Your task to perform on an android device: Open wifi settings Image 0: 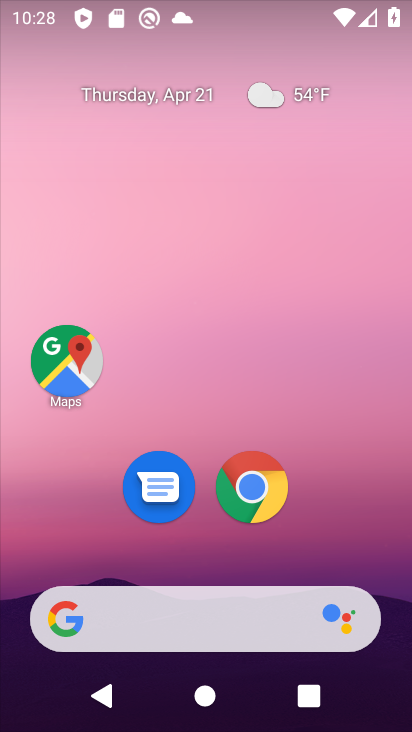
Step 0: drag from (380, 531) to (368, 142)
Your task to perform on an android device: Open wifi settings Image 1: 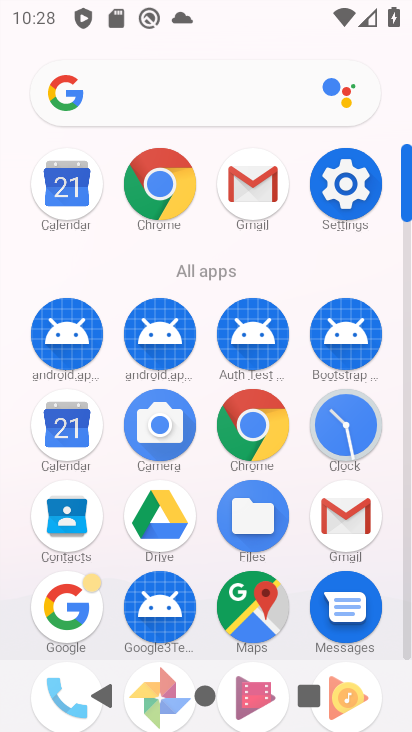
Step 1: click (350, 213)
Your task to perform on an android device: Open wifi settings Image 2: 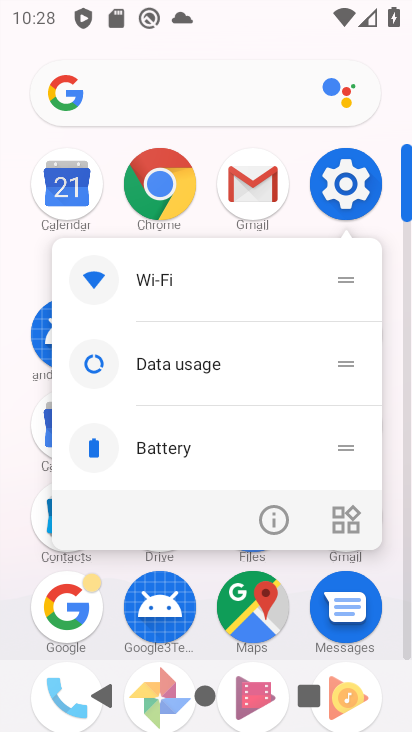
Step 2: click (350, 213)
Your task to perform on an android device: Open wifi settings Image 3: 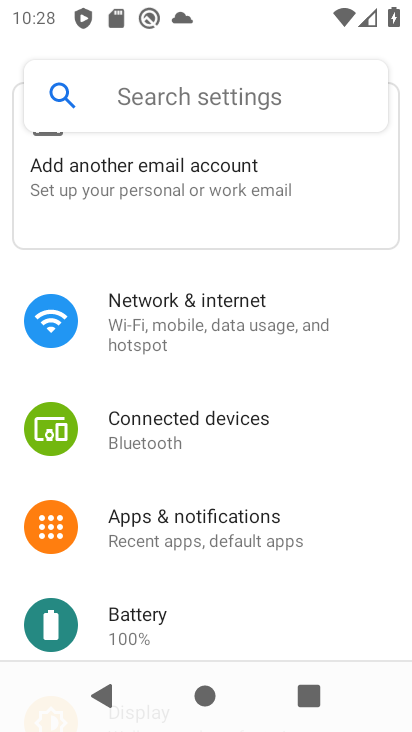
Step 3: drag from (329, 595) to (316, 325)
Your task to perform on an android device: Open wifi settings Image 4: 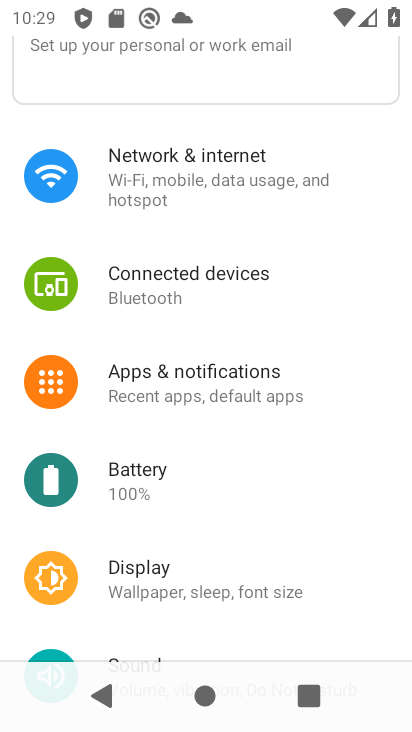
Step 4: click (222, 172)
Your task to perform on an android device: Open wifi settings Image 5: 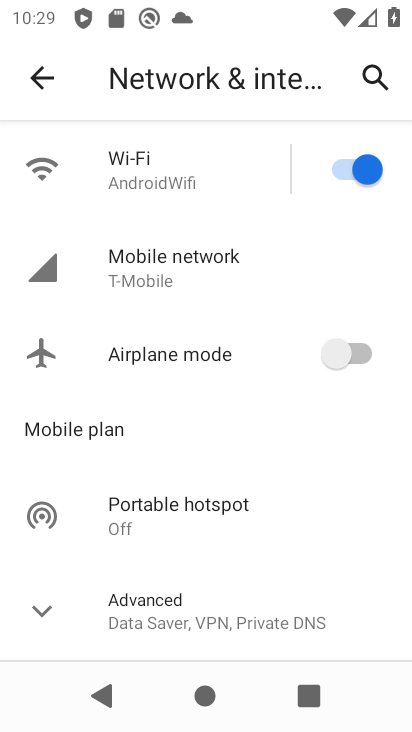
Step 5: task complete